Your task to perform on an android device: manage bookmarks in the chrome app Image 0: 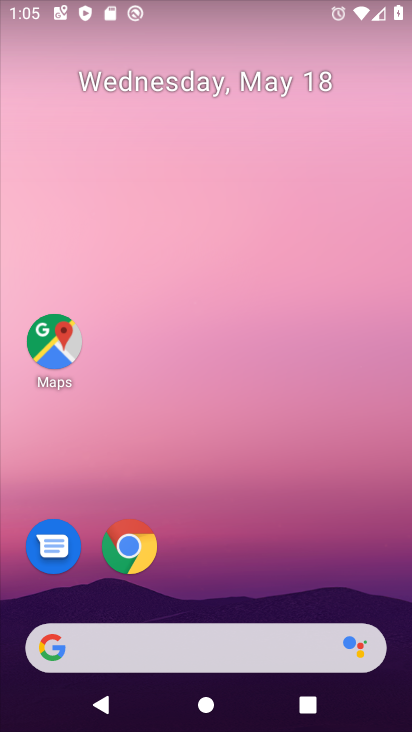
Step 0: drag from (231, 624) to (264, 122)
Your task to perform on an android device: manage bookmarks in the chrome app Image 1: 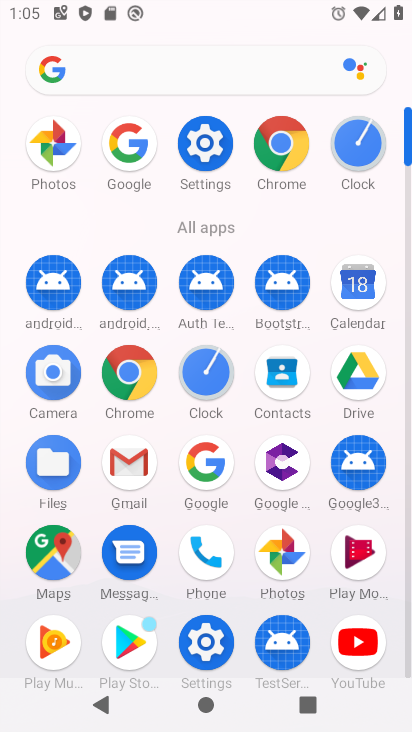
Step 1: click (276, 162)
Your task to perform on an android device: manage bookmarks in the chrome app Image 2: 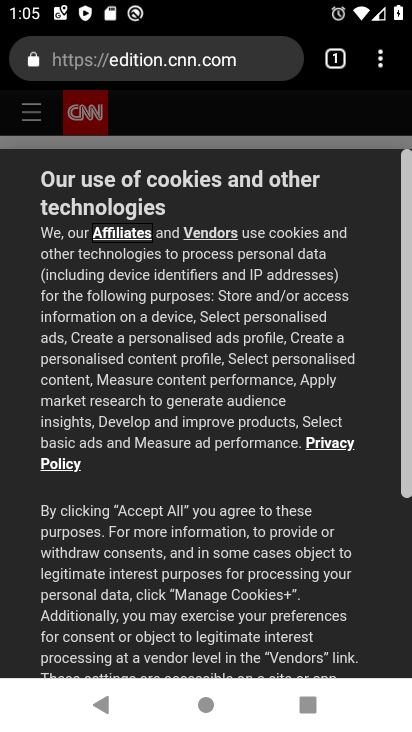
Step 2: click (387, 61)
Your task to perform on an android device: manage bookmarks in the chrome app Image 3: 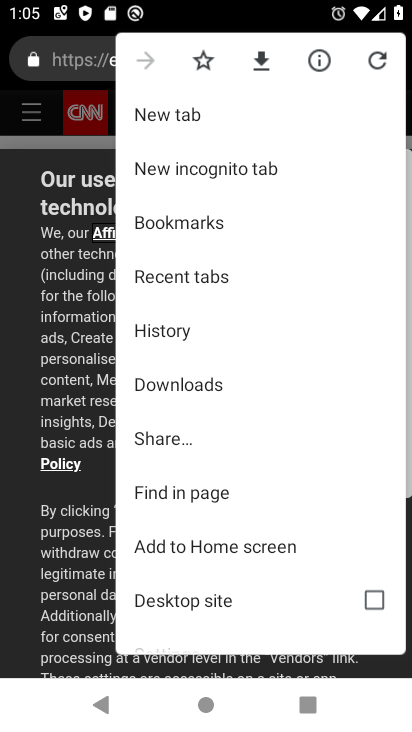
Step 3: click (196, 239)
Your task to perform on an android device: manage bookmarks in the chrome app Image 4: 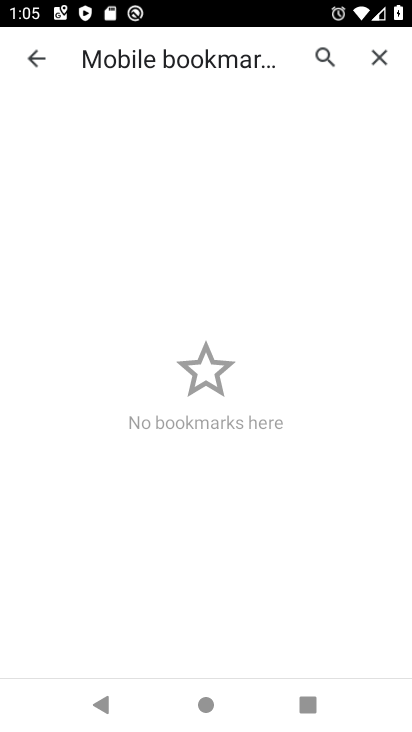
Step 4: task complete